Your task to perform on an android device: Show the shopping cart on bestbuy. Search for macbook pro 13 inch on bestbuy, select the first entry, add it to the cart, then select checkout. Image 0: 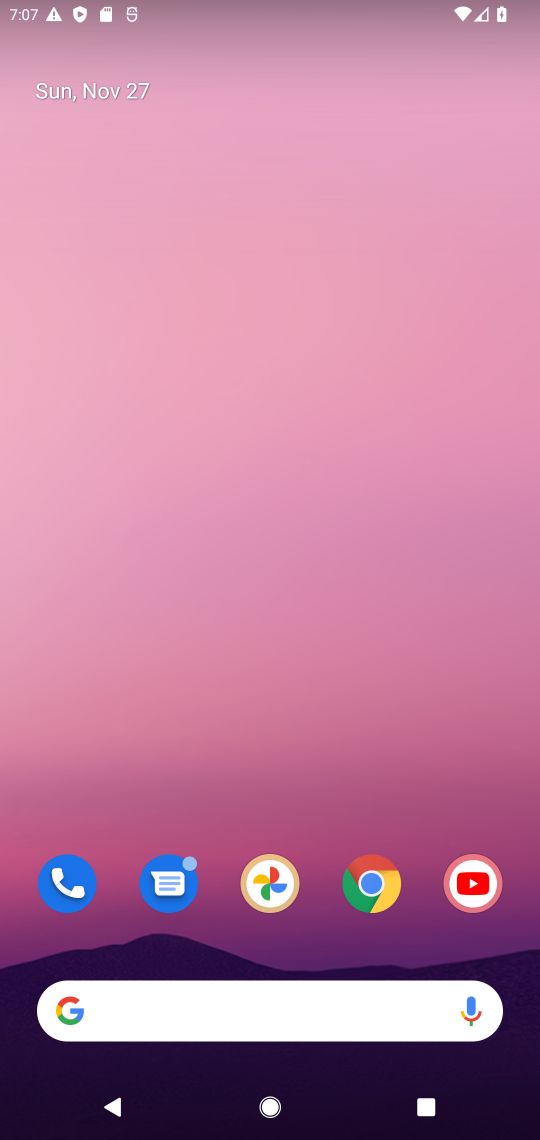
Step 0: click (370, 886)
Your task to perform on an android device: Show the shopping cart on bestbuy. Search for macbook pro 13 inch on bestbuy, select the first entry, add it to the cart, then select checkout. Image 1: 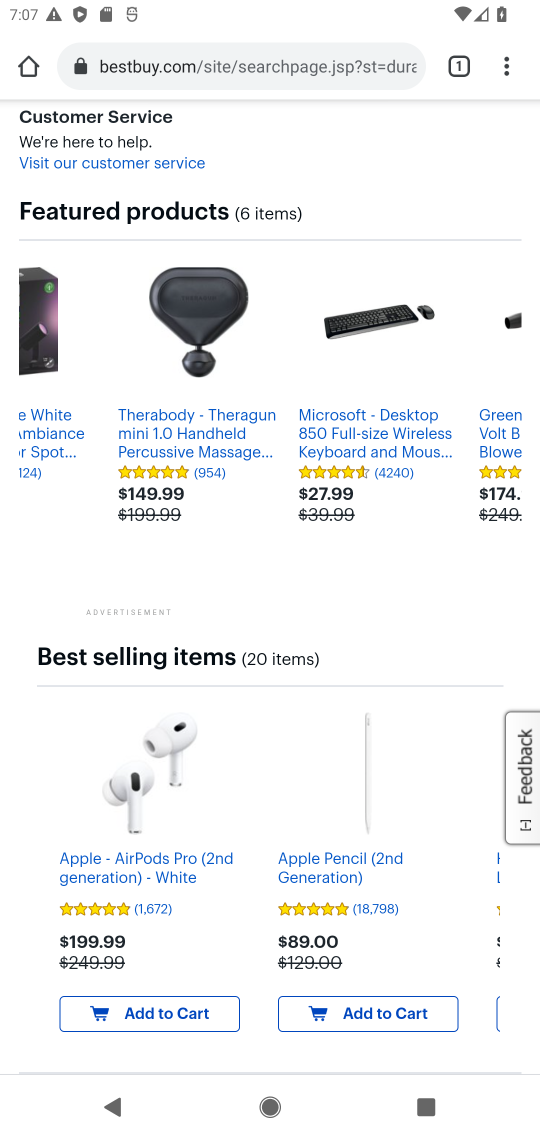
Step 1: click (203, 66)
Your task to perform on an android device: Show the shopping cart on bestbuy. Search for macbook pro 13 inch on bestbuy, select the first entry, add it to the cart, then select checkout. Image 2: 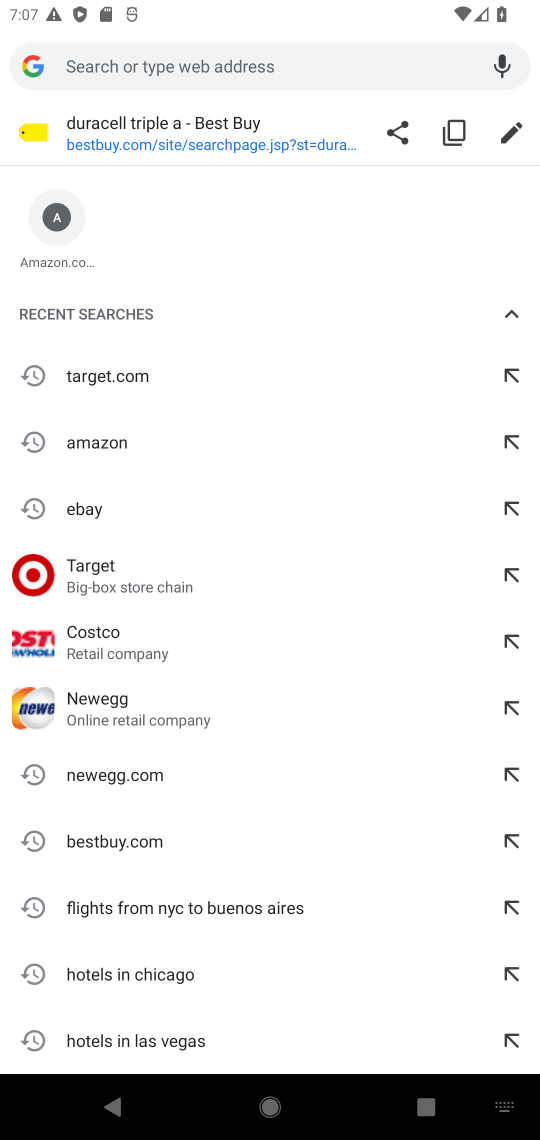
Step 2: press back button
Your task to perform on an android device: Show the shopping cart on bestbuy. Search for macbook pro 13 inch on bestbuy, select the first entry, add it to the cart, then select checkout. Image 3: 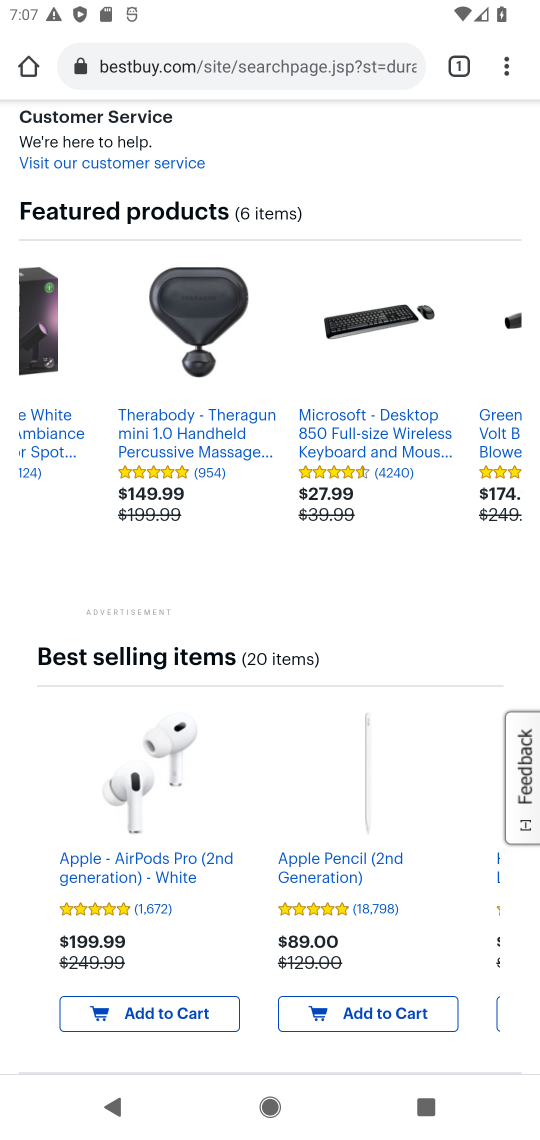
Step 3: drag from (387, 201) to (441, 534)
Your task to perform on an android device: Show the shopping cart on bestbuy. Search for macbook pro 13 inch on bestbuy, select the first entry, add it to the cart, then select checkout. Image 4: 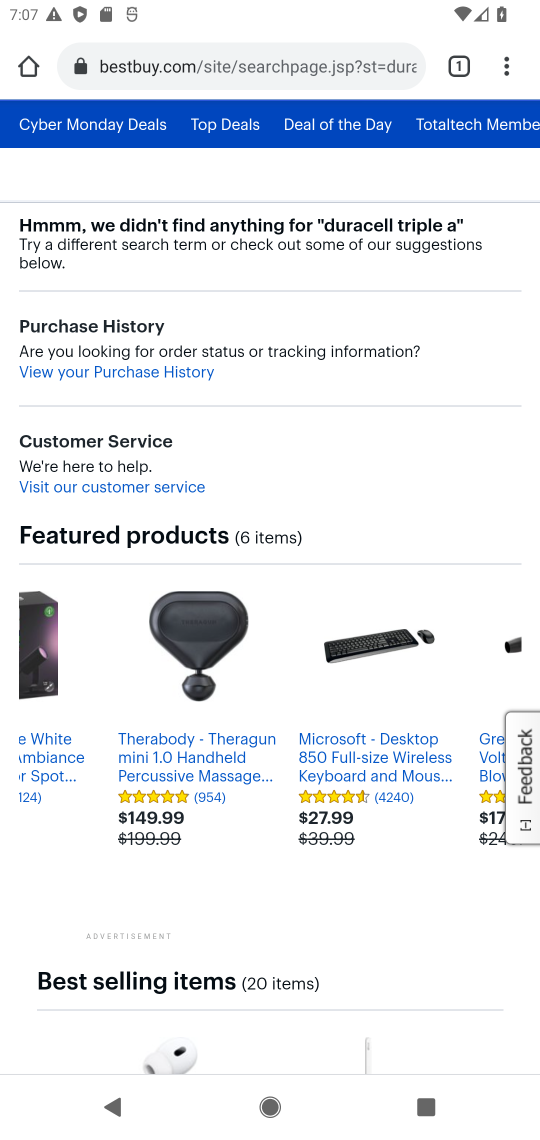
Step 4: drag from (410, 301) to (462, 717)
Your task to perform on an android device: Show the shopping cart on bestbuy. Search for macbook pro 13 inch on bestbuy, select the first entry, add it to the cart, then select checkout. Image 5: 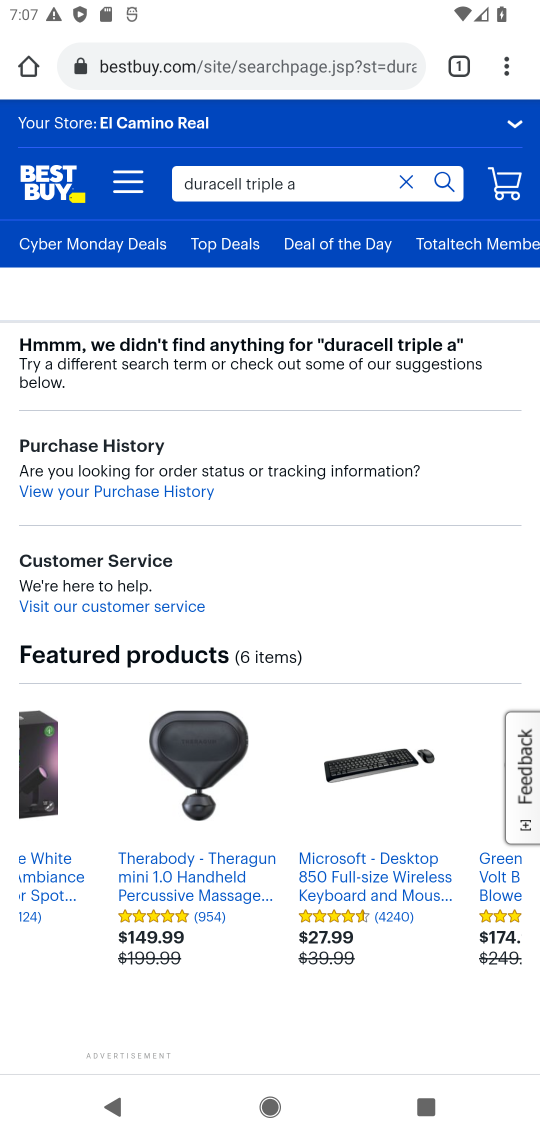
Step 5: click (499, 180)
Your task to perform on an android device: Show the shopping cart on bestbuy. Search for macbook pro 13 inch on bestbuy, select the first entry, add it to the cart, then select checkout. Image 6: 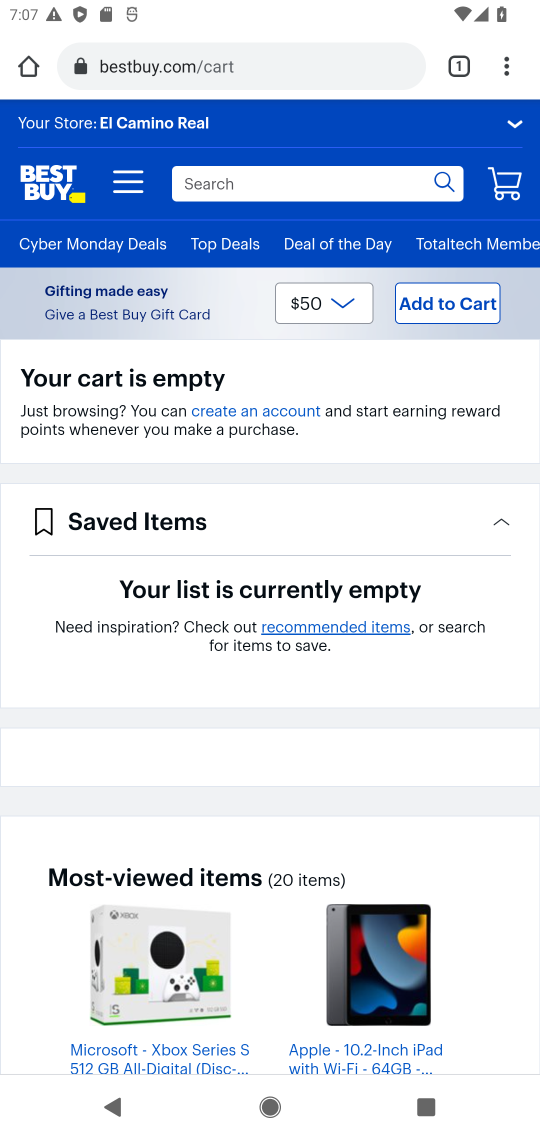
Step 6: click (301, 198)
Your task to perform on an android device: Show the shopping cart on bestbuy. Search for macbook pro 13 inch on bestbuy, select the first entry, add it to the cart, then select checkout. Image 7: 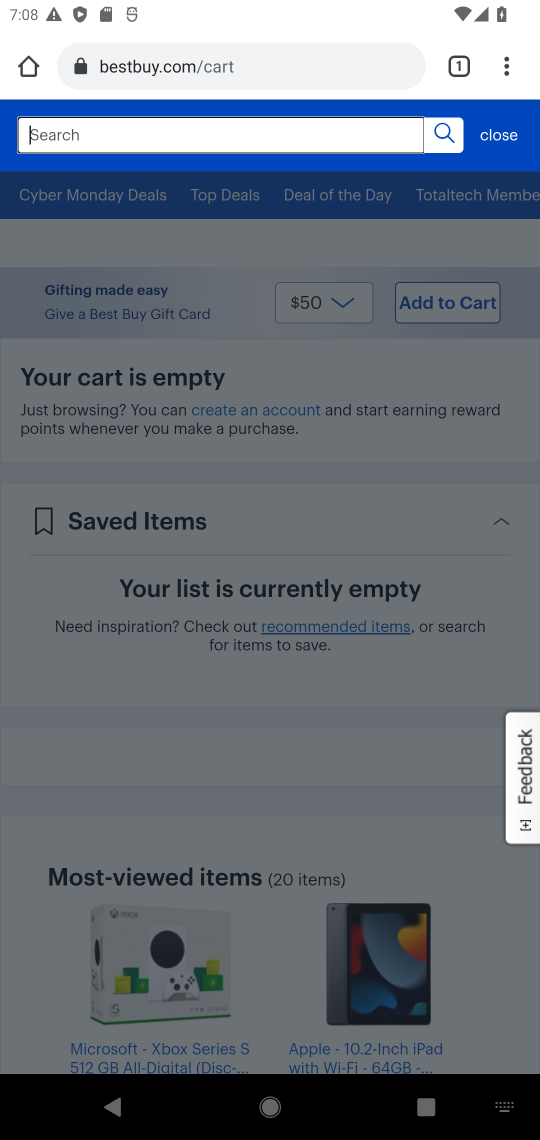
Step 7: type "macbook pro 13"
Your task to perform on an android device: Show the shopping cart on bestbuy. Search for macbook pro 13 inch on bestbuy, select the first entry, add it to the cart, then select checkout. Image 8: 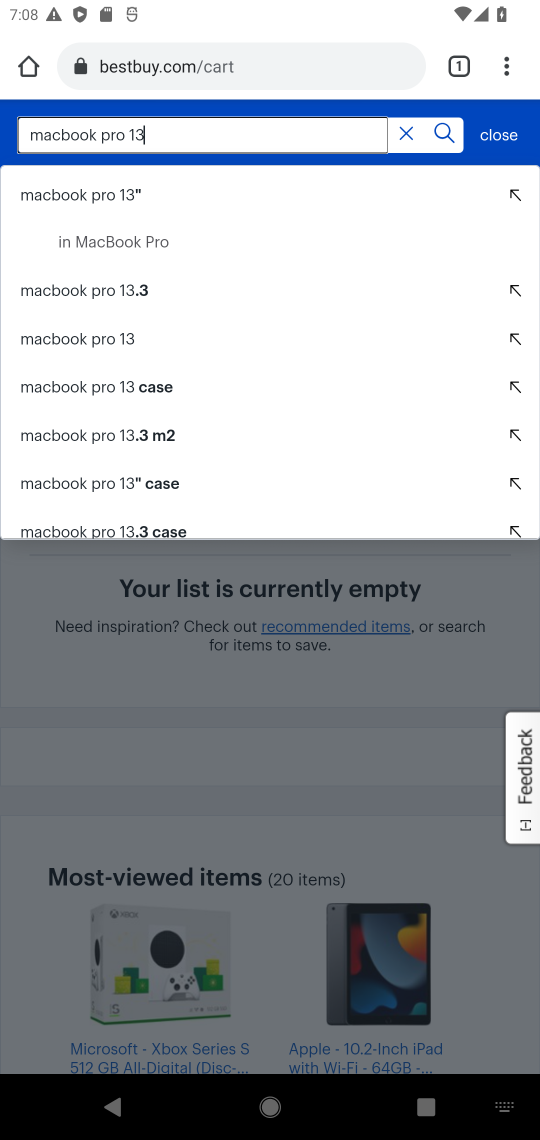
Step 8: click (138, 189)
Your task to perform on an android device: Show the shopping cart on bestbuy. Search for macbook pro 13 inch on bestbuy, select the first entry, add it to the cart, then select checkout. Image 9: 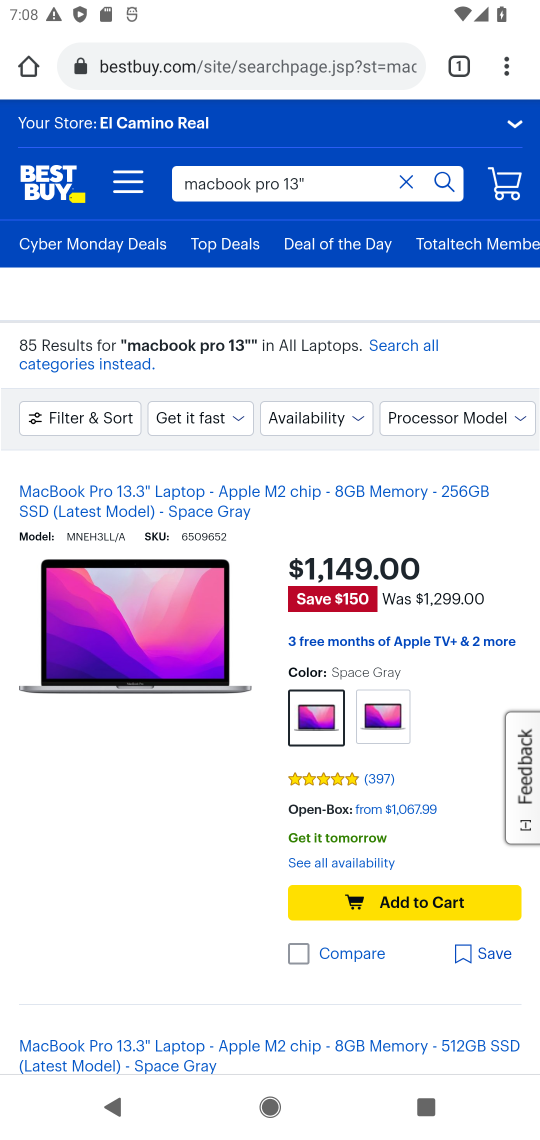
Step 9: click (404, 899)
Your task to perform on an android device: Show the shopping cart on bestbuy. Search for macbook pro 13 inch on bestbuy, select the first entry, add it to the cart, then select checkout. Image 10: 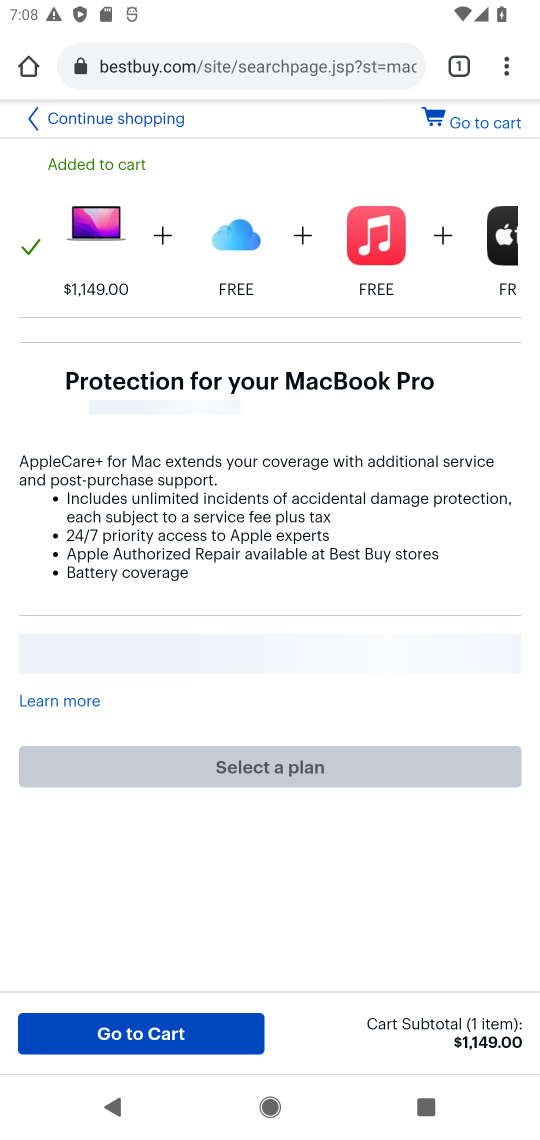
Step 10: click (129, 1038)
Your task to perform on an android device: Show the shopping cart on bestbuy. Search for macbook pro 13 inch on bestbuy, select the first entry, add it to the cart, then select checkout. Image 11: 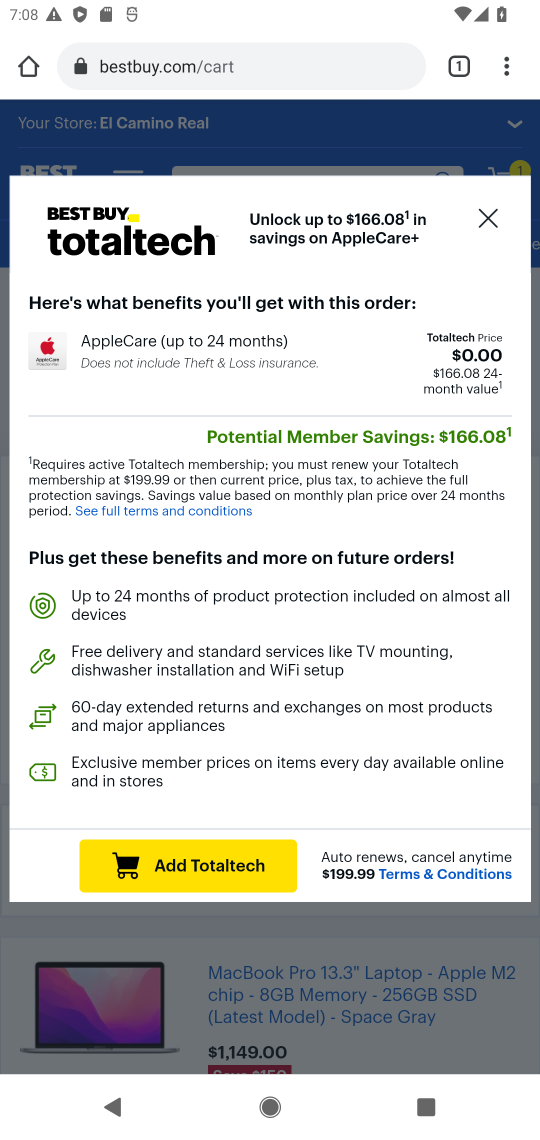
Step 11: click (484, 209)
Your task to perform on an android device: Show the shopping cart on bestbuy. Search for macbook pro 13 inch on bestbuy, select the first entry, add it to the cart, then select checkout. Image 12: 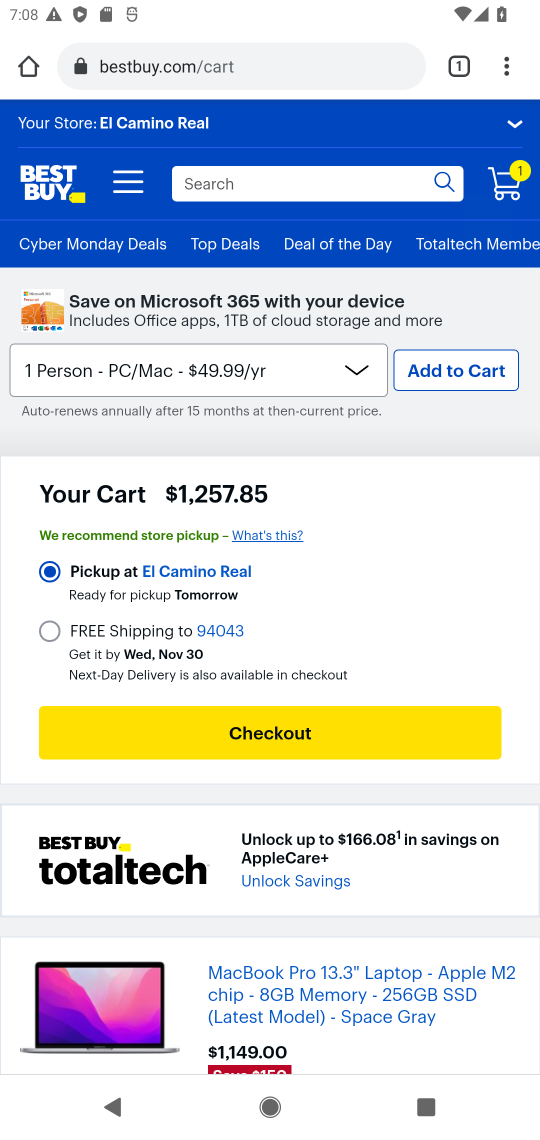
Step 12: click (269, 726)
Your task to perform on an android device: Show the shopping cart on bestbuy. Search for macbook pro 13 inch on bestbuy, select the first entry, add it to the cart, then select checkout. Image 13: 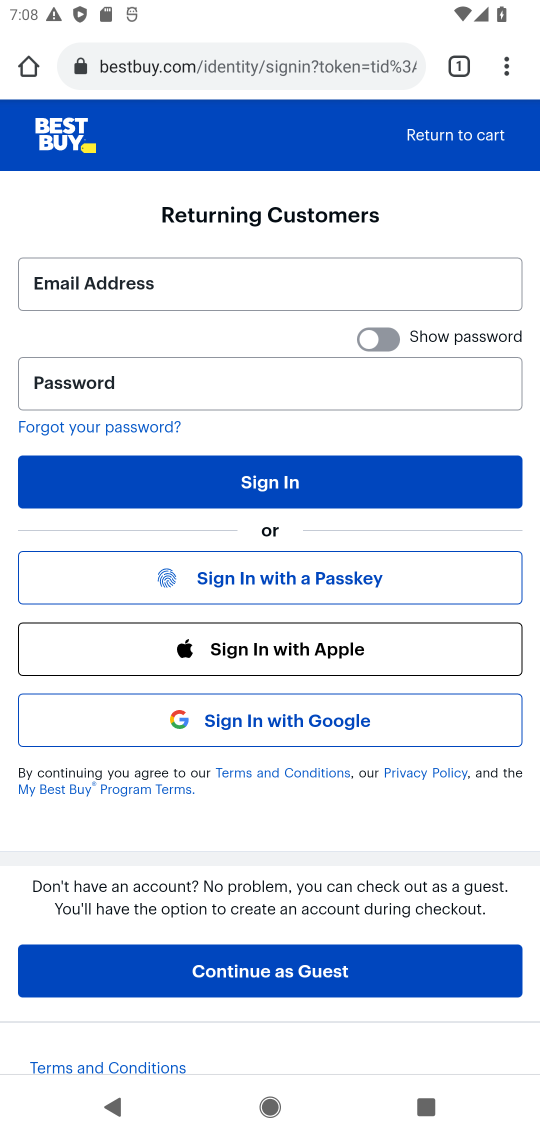
Step 13: task complete